Your task to perform on an android device: When is my next meeting? Image 0: 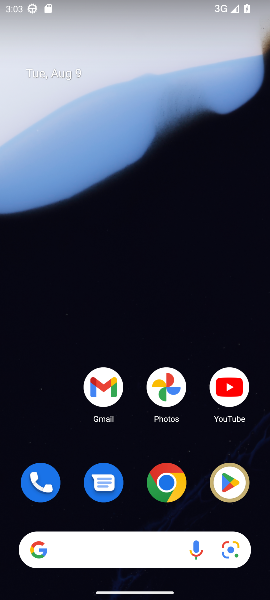
Step 0: drag from (135, 448) to (141, 137)
Your task to perform on an android device: When is my next meeting? Image 1: 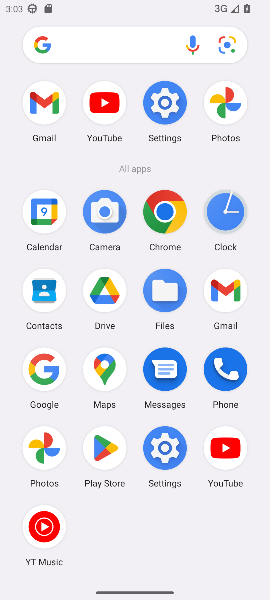
Step 1: click (49, 218)
Your task to perform on an android device: When is my next meeting? Image 2: 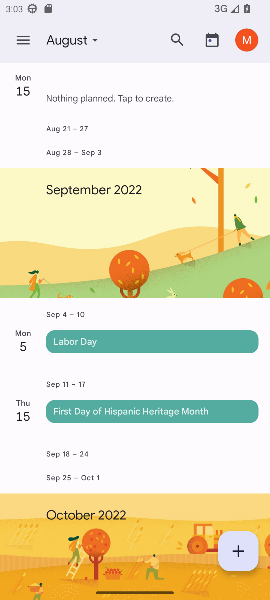
Step 2: click (82, 38)
Your task to perform on an android device: When is my next meeting? Image 3: 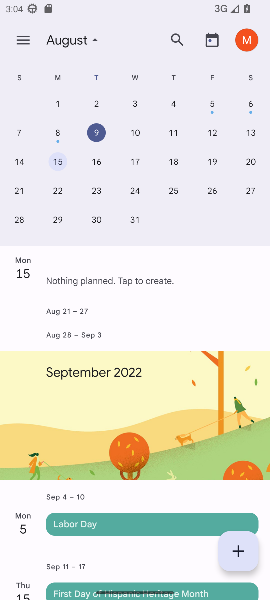
Step 3: click (138, 136)
Your task to perform on an android device: When is my next meeting? Image 4: 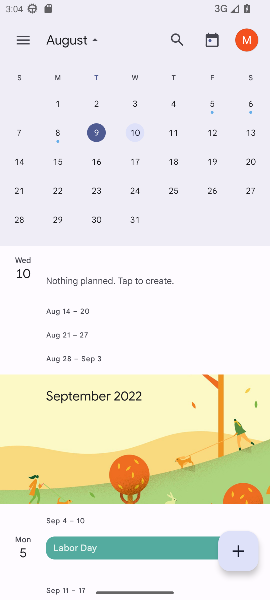
Step 4: click (195, 134)
Your task to perform on an android device: When is my next meeting? Image 5: 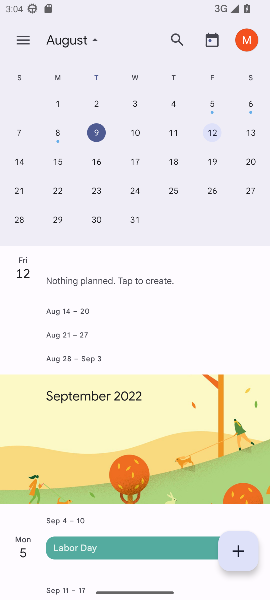
Step 5: task complete